Your task to perform on an android device: Go to display settings Image 0: 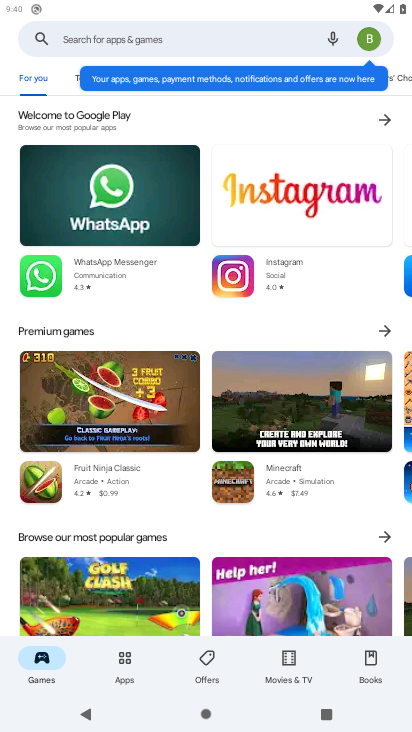
Step 0: click (138, 606)
Your task to perform on an android device: Go to display settings Image 1: 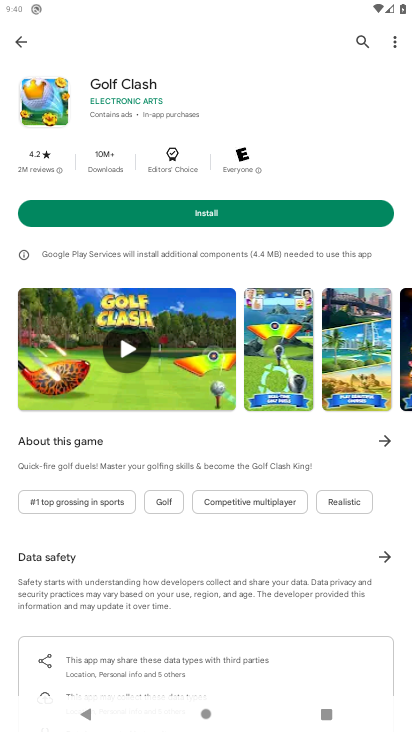
Step 1: press home button
Your task to perform on an android device: Go to display settings Image 2: 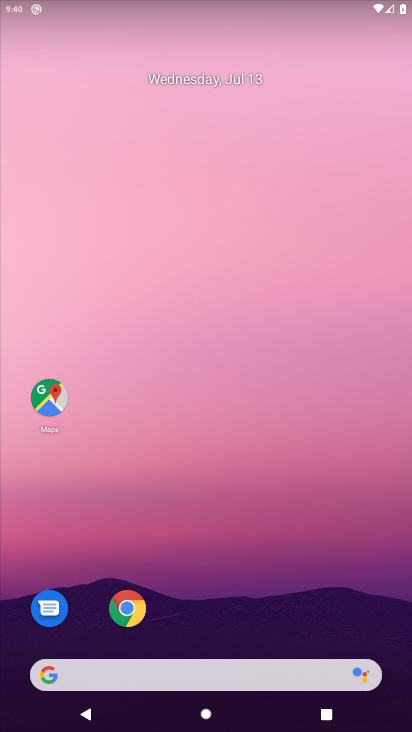
Step 2: drag from (92, 558) to (274, 70)
Your task to perform on an android device: Go to display settings Image 3: 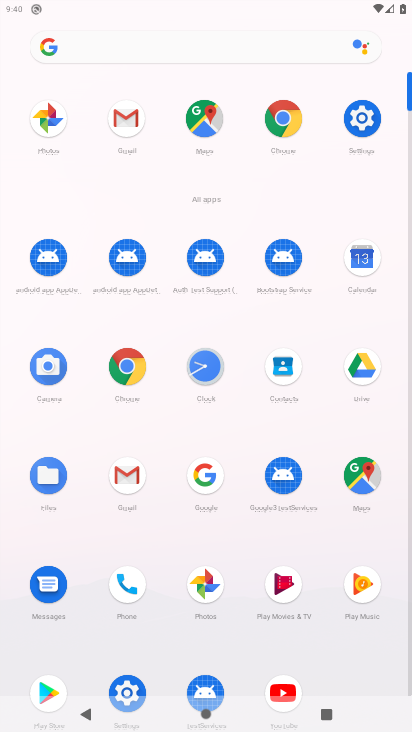
Step 3: click (129, 685)
Your task to perform on an android device: Go to display settings Image 4: 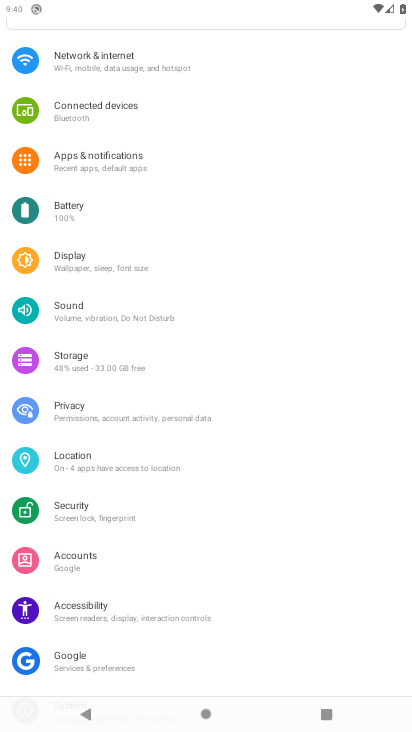
Step 4: click (86, 269)
Your task to perform on an android device: Go to display settings Image 5: 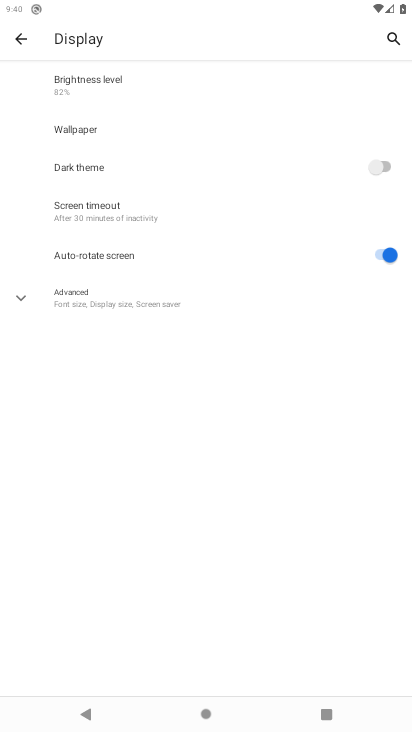
Step 5: task complete